Your task to perform on an android device: Go to wifi settings Image 0: 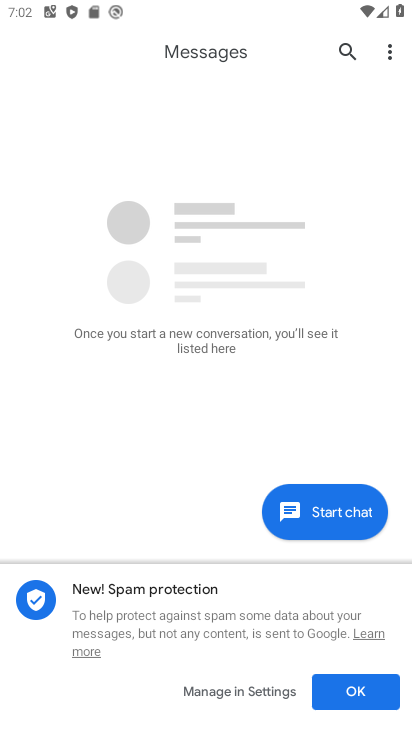
Step 0: press home button
Your task to perform on an android device: Go to wifi settings Image 1: 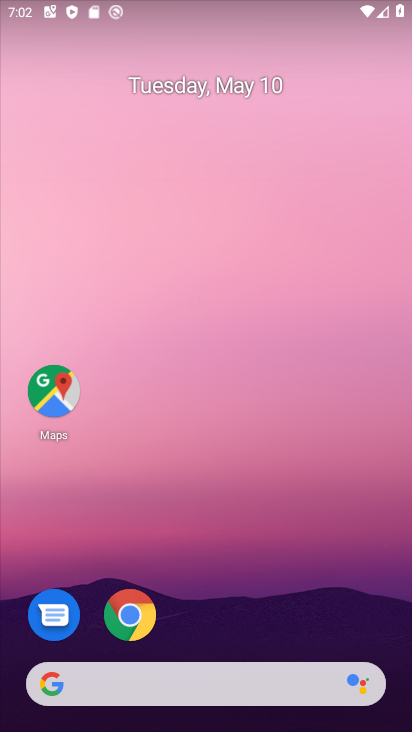
Step 1: drag from (194, 504) to (65, 56)
Your task to perform on an android device: Go to wifi settings Image 2: 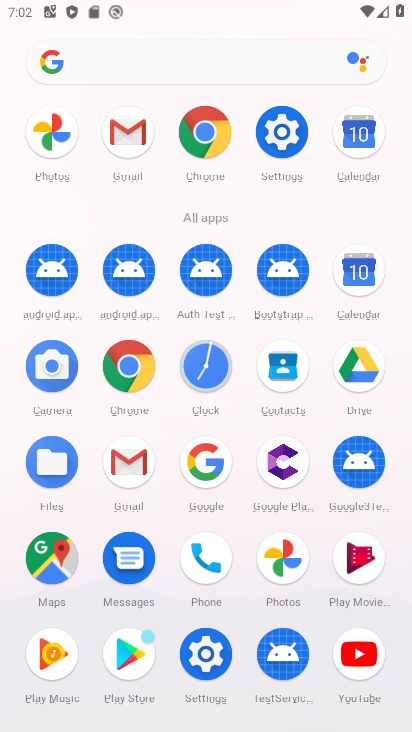
Step 2: click (206, 658)
Your task to perform on an android device: Go to wifi settings Image 3: 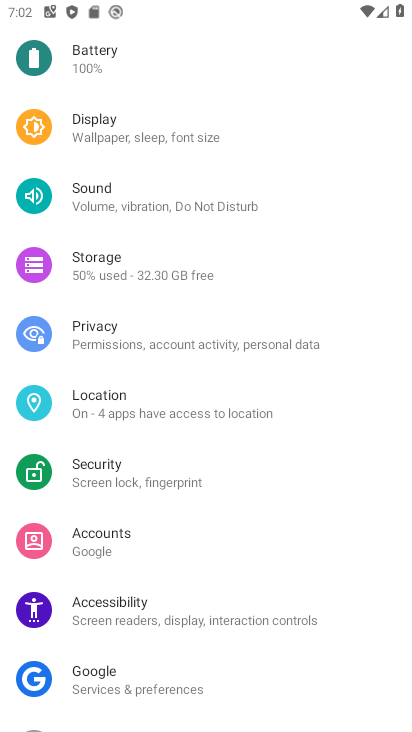
Step 3: drag from (146, 159) to (55, 684)
Your task to perform on an android device: Go to wifi settings Image 4: 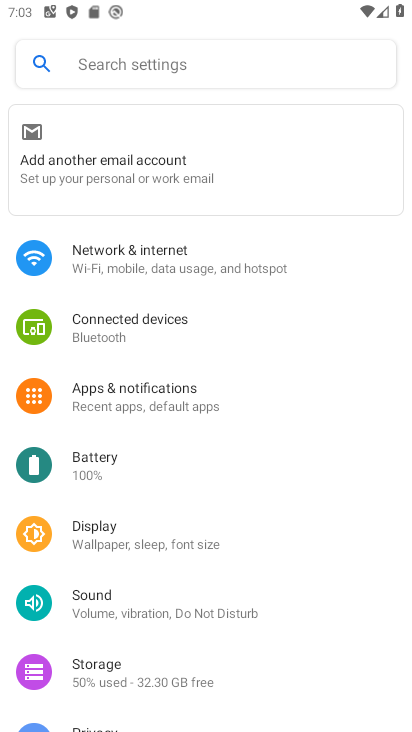
Step 4: click (148, 251)
Your task to perform on an android device: Go to wifi settings Image 5: 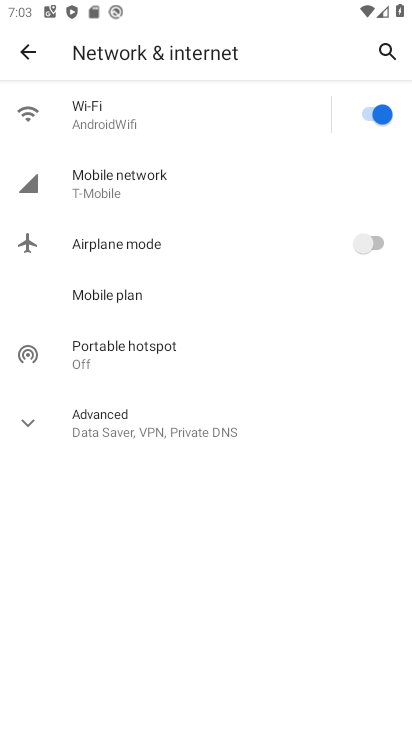
Step 5: click (102, 108)
Your task to perform on an android device: Go to wifi settings Image 6: 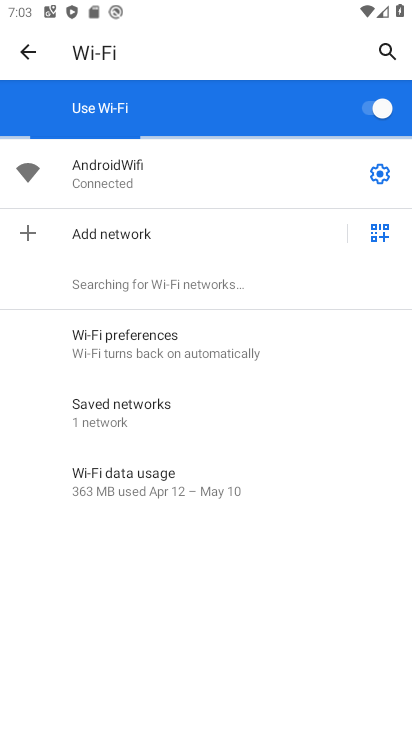
Step 6: task complete